Your task to perform on an android device: Search for pizza restaurants on Maps Image 0: 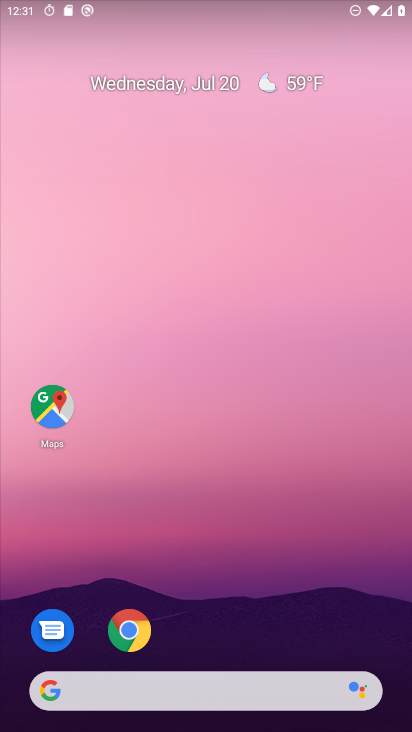
Step 0: drag from (270, 686) to (368, 32)
Your task to perform on an android device: Search for pizza restaurants on Maps Image 1: 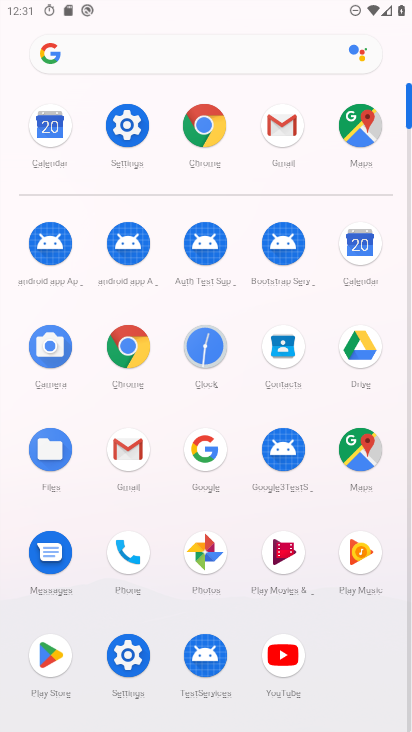
Step 1: click (354, 447)
Your task to perform on an android device: Search for pizza restaurants on Maps Image 2: 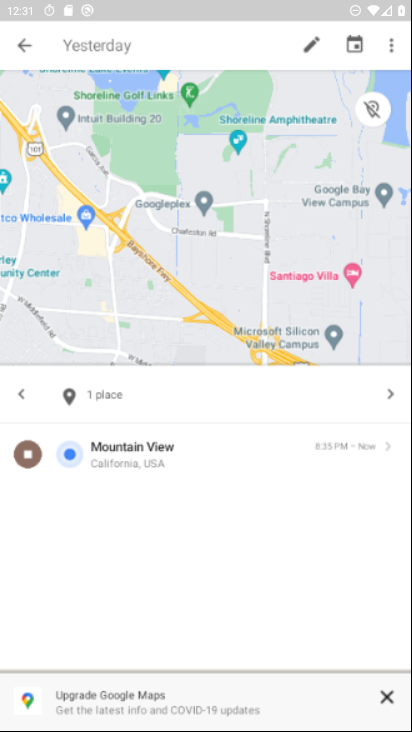
Step 2: press back button
Your task to perform on an android device: Search for pizza restaurants on Maps Image 3: 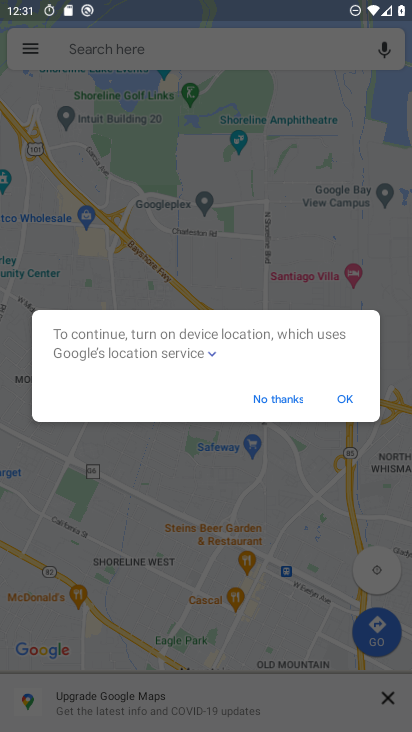
Step 3: click (282, 395)
Your task to perform on an android device: Search for pizza restaurants on Maps Image 4: 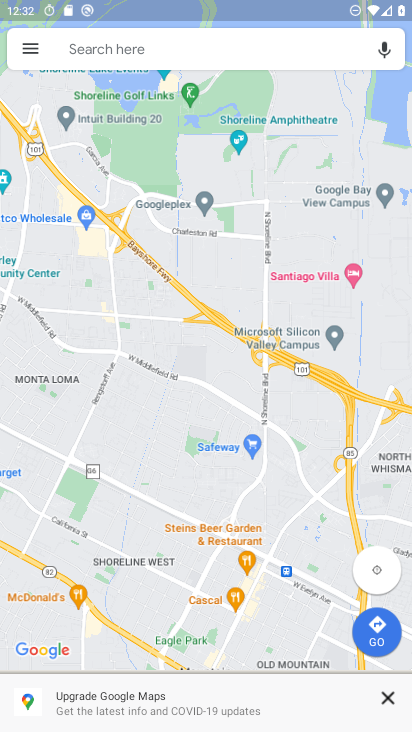
Step 4: click (208, 49)
Your task to perform on an android device: Search for pizza restaurants on Maps Image 5: 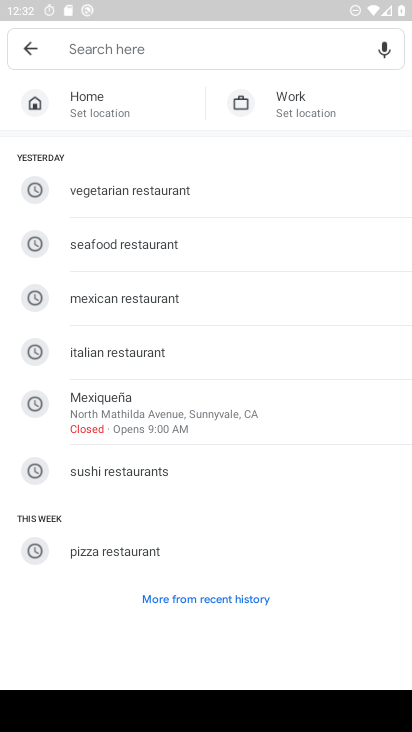
Step 5: click (118, 548)
Your task to perform on an android device: Search for pizza restaurants on Maps Image 6: 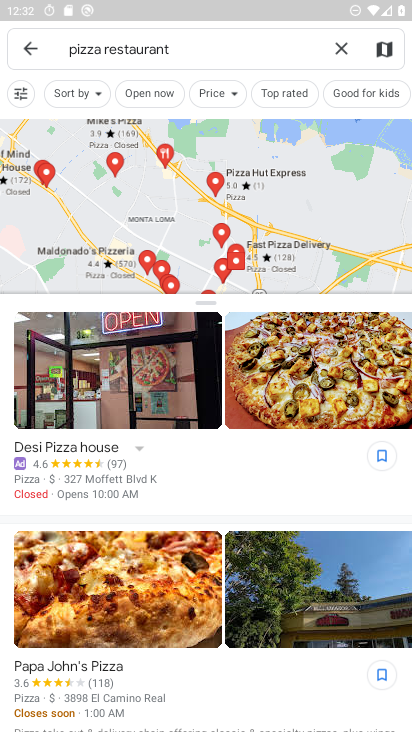
Step 6: task complete